Your task to perform on an android device: change keyboard looks Image 0: 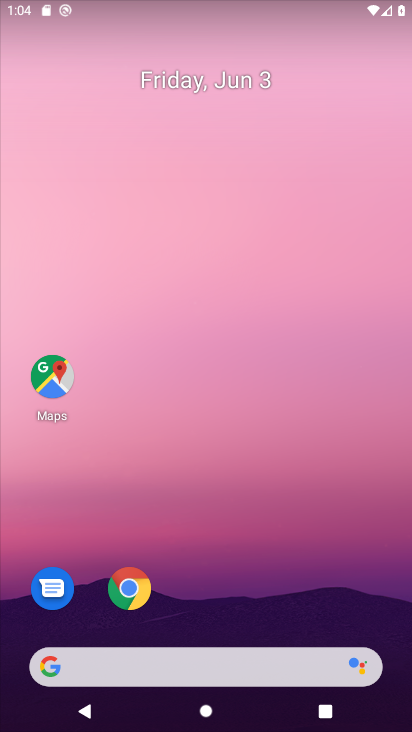
Step 0: drag from (254, 622) to (237, 213)
Your task to perform on an android device: change keyboard looks Image 1: 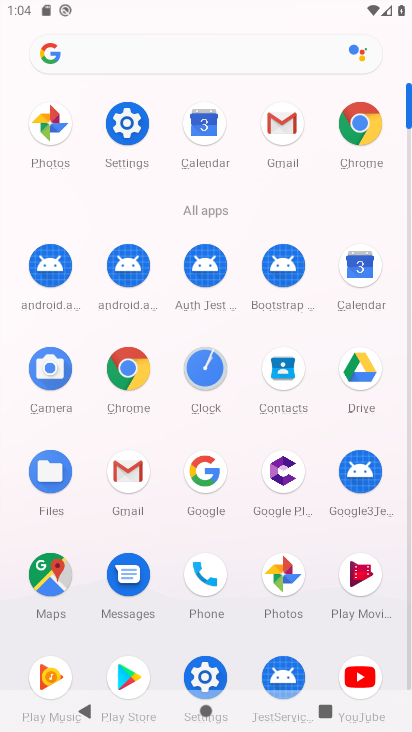
Step 1: click (128, 122)
Your task to perform on an android device: change keyboard looks Image 2: 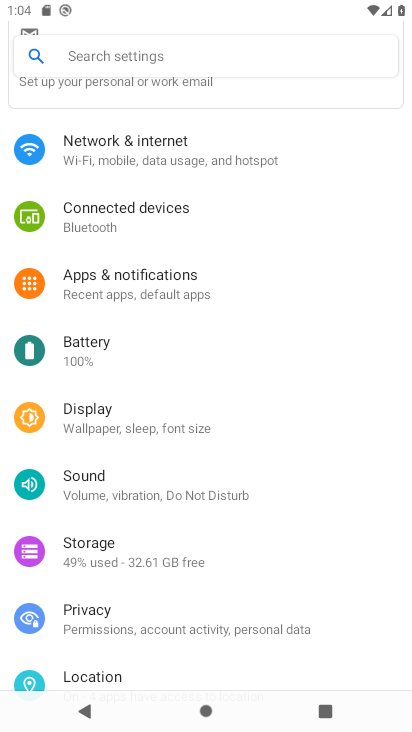
Step 2: drag from (186, 653) to (155, 283)
Your task to perform on an android device: change keyboard looks Image 3: 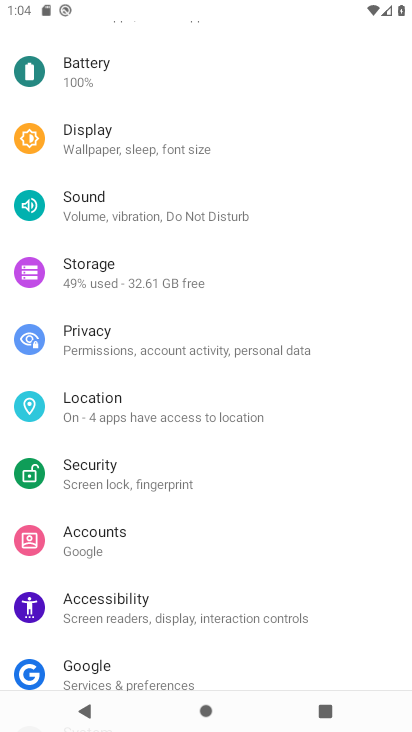
Step 3: drag from (165, 577) to (157, 286)
Your task to perform on an android device: change keyboard looks Image 4: 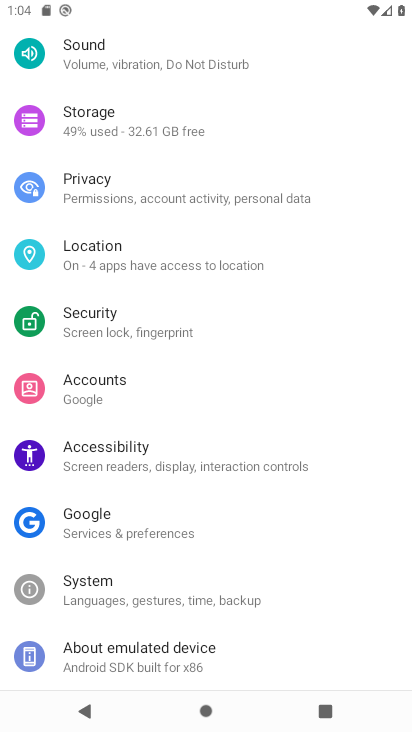
Step 4: click (179, 602)
Your task to perform on an android device: change keyboard looks Image 5: 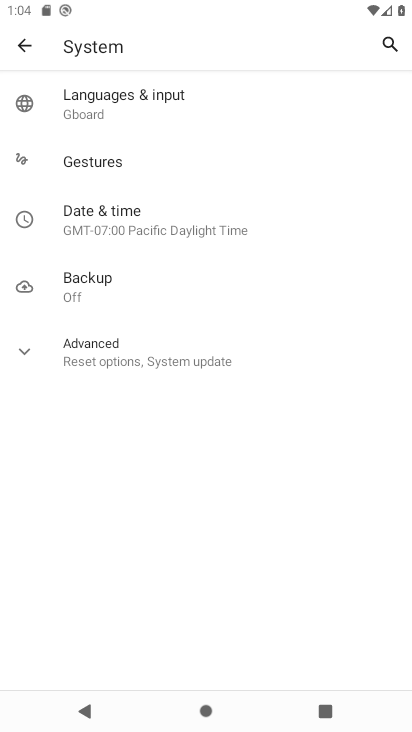
Step 5: click (185, 100)
Your task to perform on an android device: change keyboard looks Image 6: 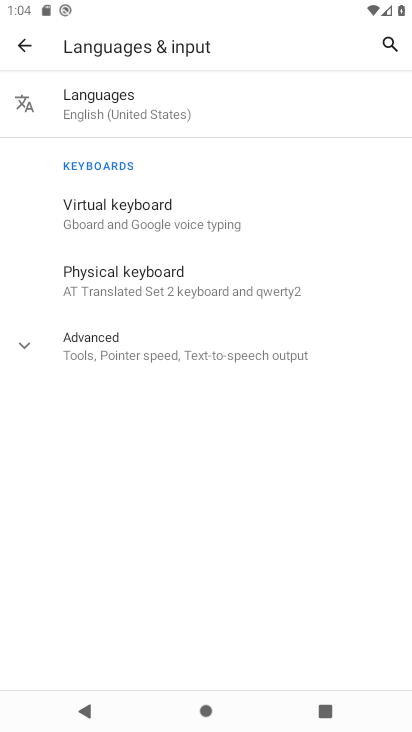
Step 6: click (187, 210)
Your task to perform on an android device: change keyboard looks Image 7: 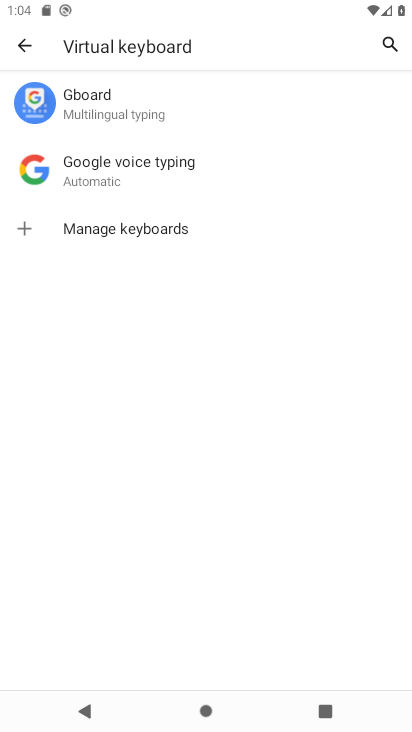
Step 7: click (110, 108)
Your task to perform on an android device: change keyboard looks Image 8: 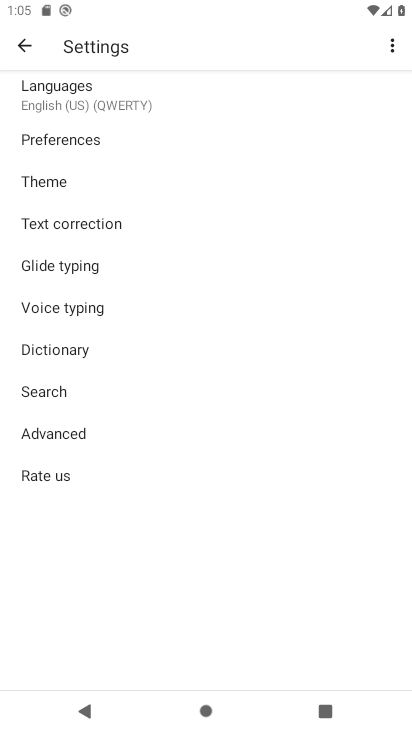
Step 8: drag from (105, 168) to (70, 168)
Your task to perform on an android device: change keyboard looks Image 9: 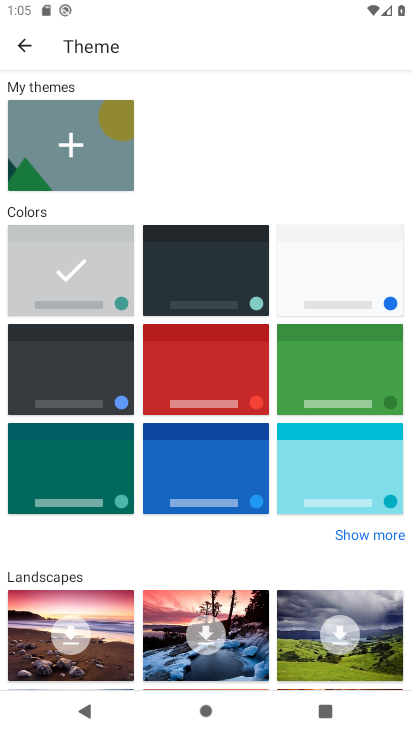
Step 9: click (241, 259)
Your task to perform on an android device: change keyboard looks Image 10: 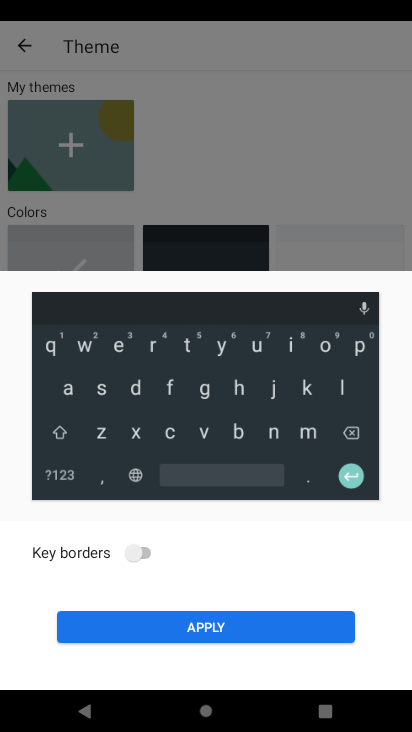
Step 10: click (324, 631)
Your task to perform on an android device: change keyboard looks Image 11: 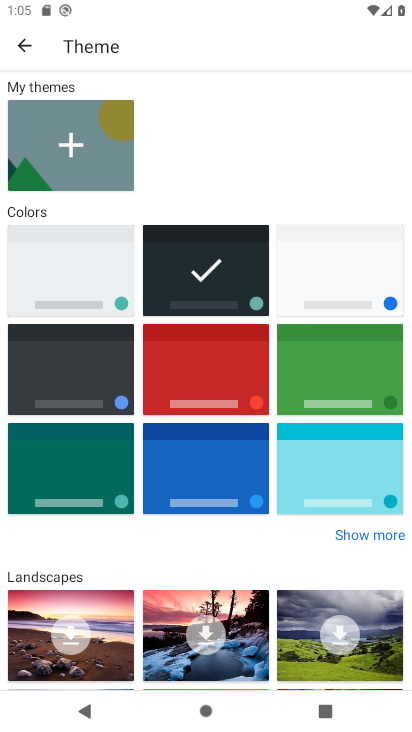
Step 11: task complete